Your task to perform on an android device: Open Yahoo.com Image 0: 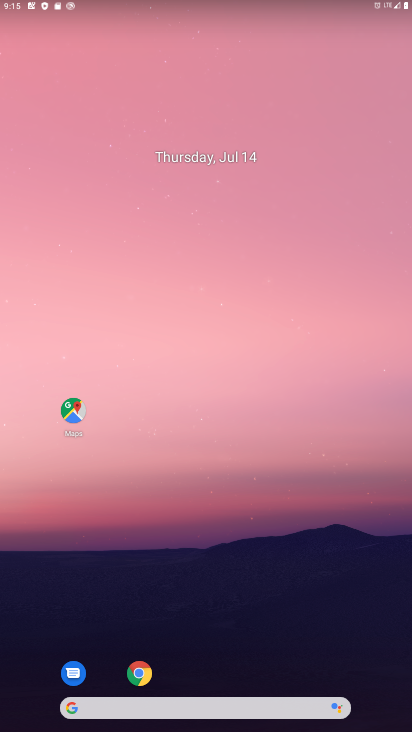
Step 0: click (138, 674)
Your task to perform on an android device: Open Yahoo.com Image 1: 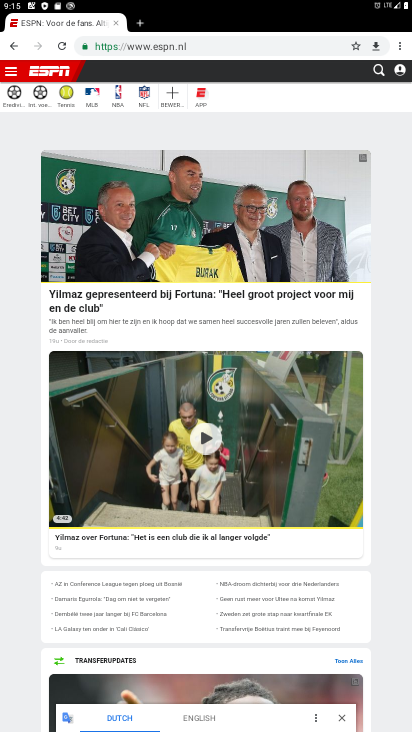
Step 1: click (253, 48)
Your task to perform on an android device: Open Yahoo.com Image 2: 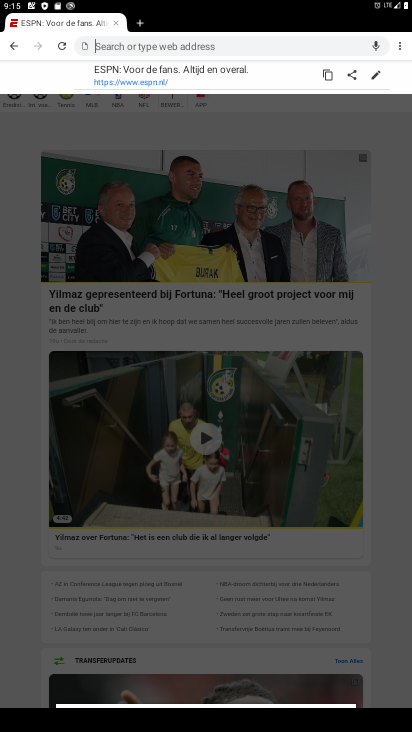
Step 2: type "Yahoo.com"
Your task to perform on an android device: Open Yahoo.com Image 3: 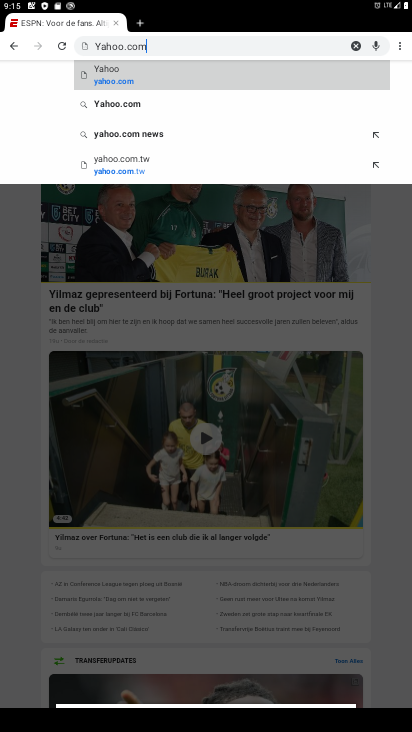
Step 3: type ""
Your task to perform on an android device: Open Yahoo.com Image 4: 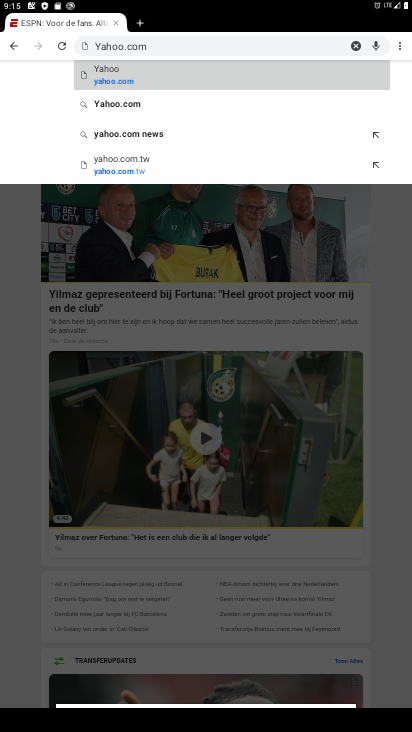
Step 4: click (121, 102)
Your task to perform on an android device: Open Yahoo.com Image 5: 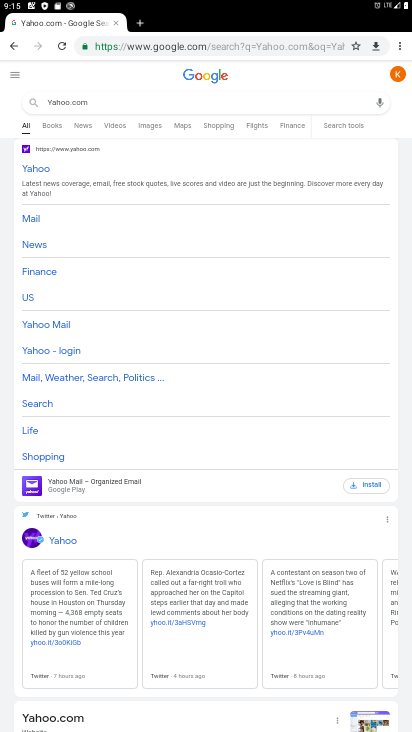
Step 5: click (43, 176)
Your task to perform on an android device: Open Yahoo.com Image 6: 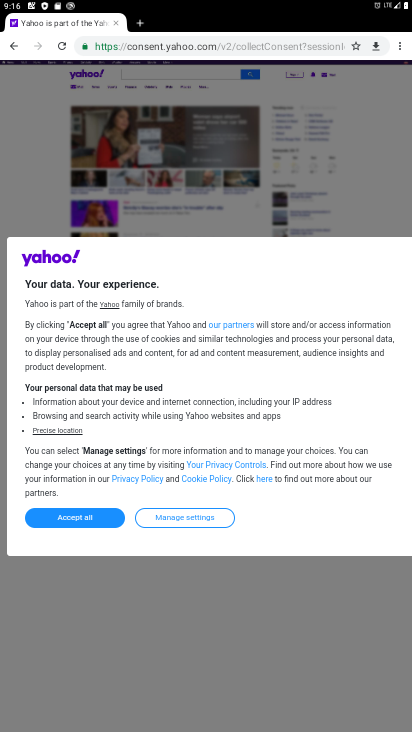
Step 6: click (83, 514)
Your task to perform on an android device: Open Yahoo.com Image 7: 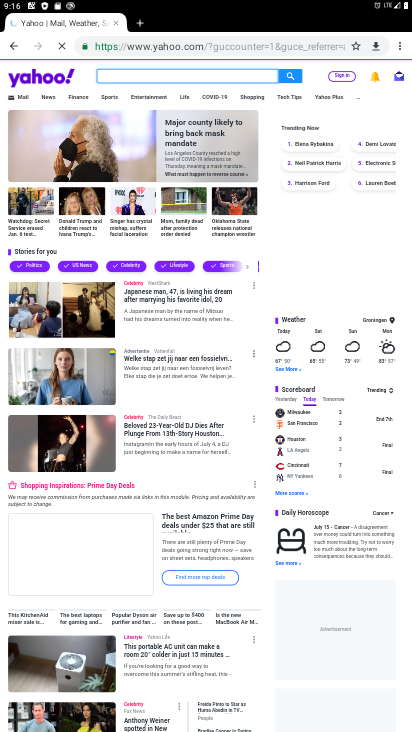
Step 7: task complete